Your task to perform on an android device: turn off location Image 0: 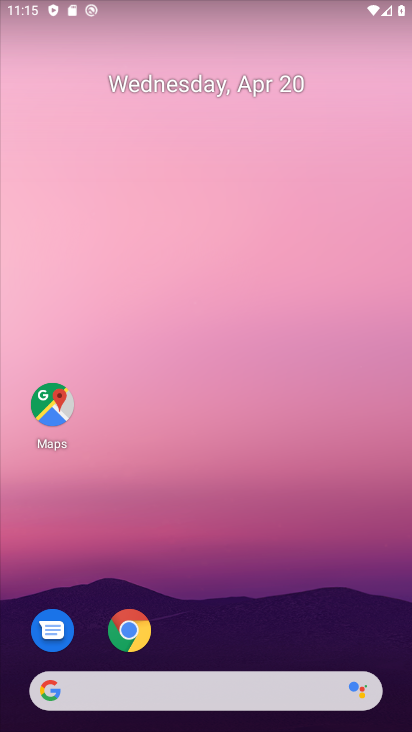
Step 0: drag from (209, 600) to (312, 125)
Your task to perform on an android device: turn off location Image 1: 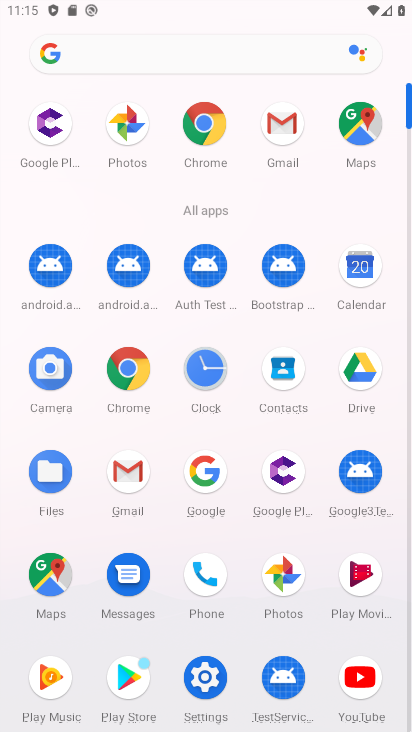
Step 1: click (214, 682)
Your task to perform on an android device: turn off location Image 2: 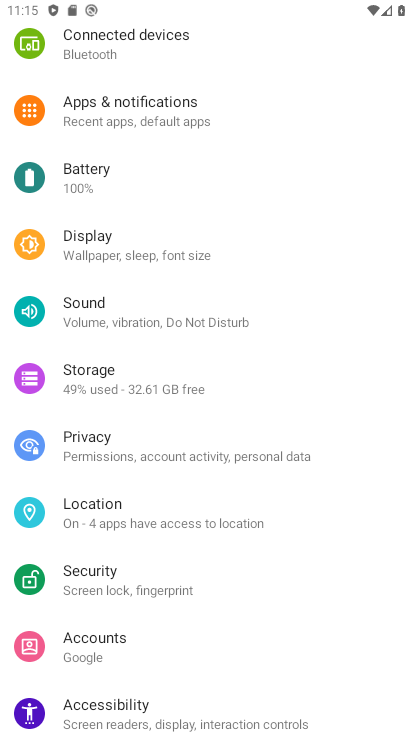
Step 2: click (129, 488)
Your task to perform on an android device: turn off location Image 3: 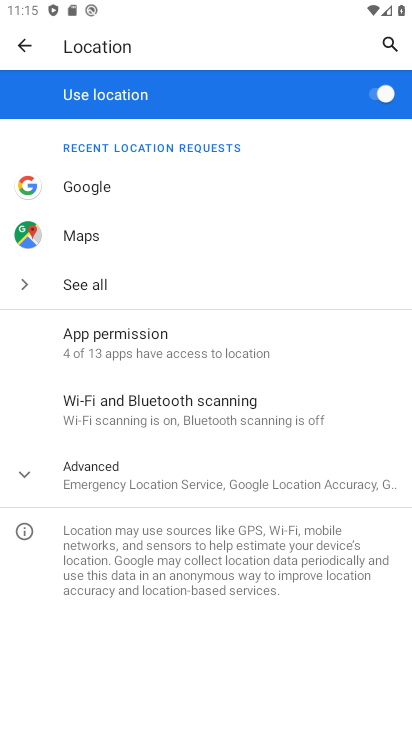
Step 3: click (374, 90)
Your task to perform on an android device: turn off location Image 4: 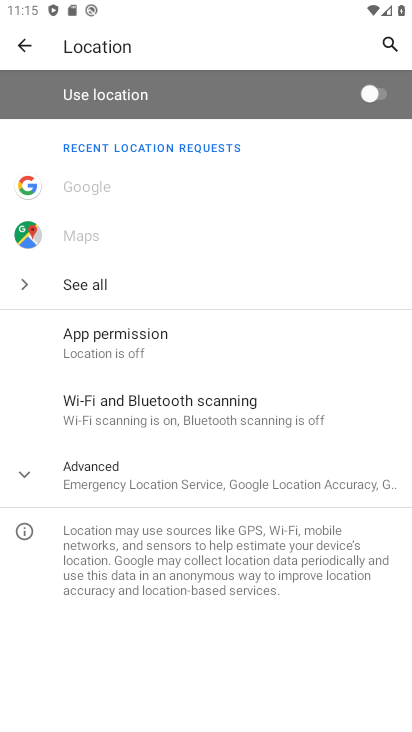
Step 4: task complete